Your task to perform on an android device: set default search engine in the chrome app Image 0: 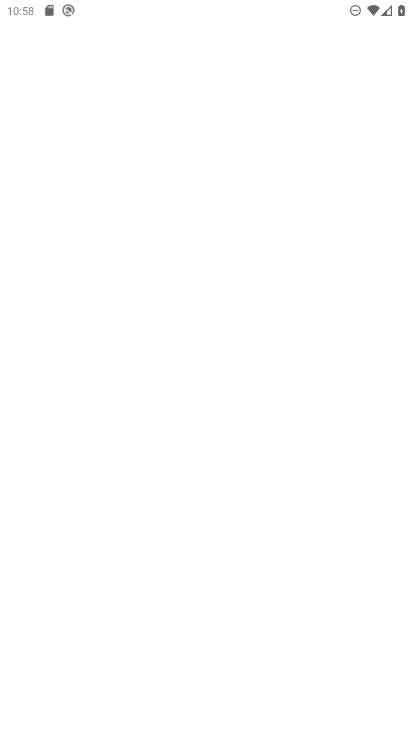
Step 0: click (185, 135)
Your task to perform on an android device: set default search engine in the chrome app Image 1: 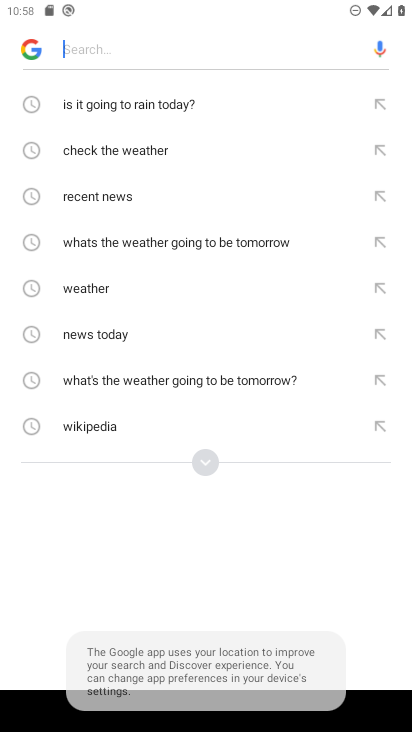
Step 1: press home button
Your task to perform on an android device: set default search engine in the chrome app Image 2: 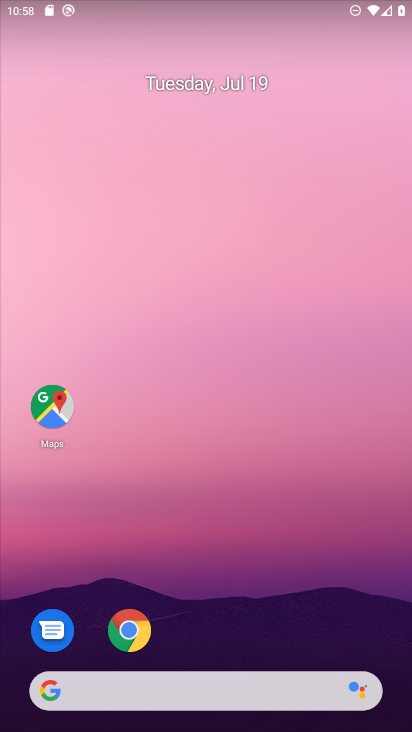
Step 2: drag from (97, 601) to (154, 601)
Your task to perform on an android device: set default search engine in the chrome app Image 3: 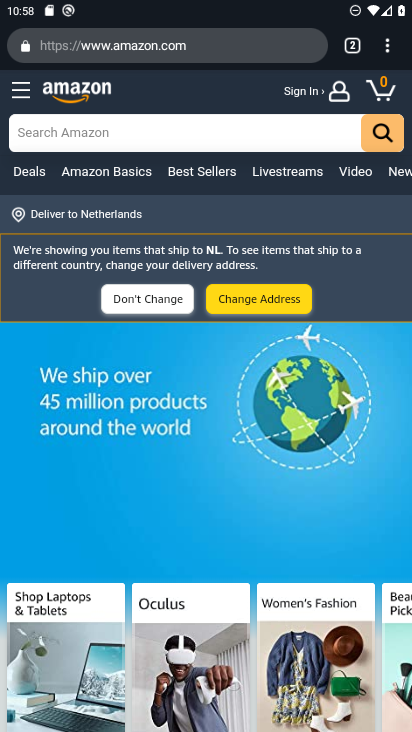
Step 3: drag from (386, 52) to (216, 544)
Your task to perform on an android device: set default search engine in the chrome app Image 4: 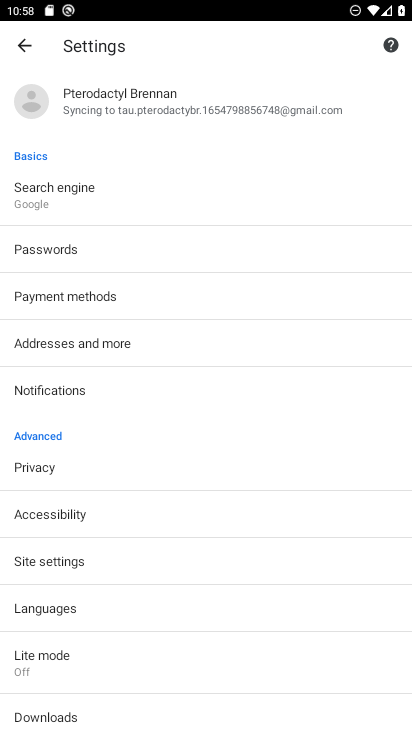
Step 4: click (55, 198)
Your task to perform on an android device: set default search engine in the chrome app Image 5: 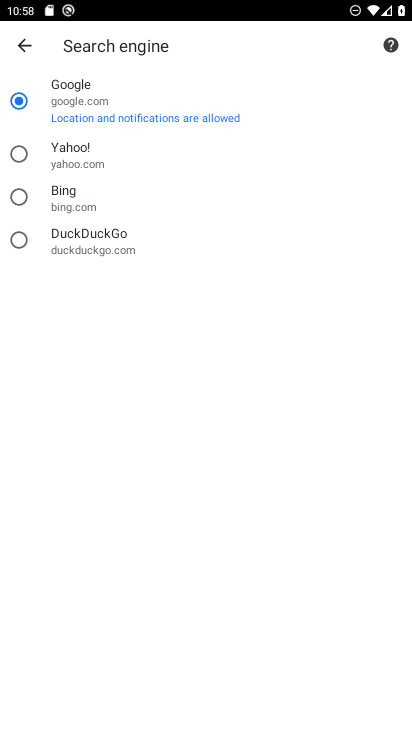
Step 5: click (68, 233)
Your task to perform on an android device: set default search engine in the chrome app Image 6: 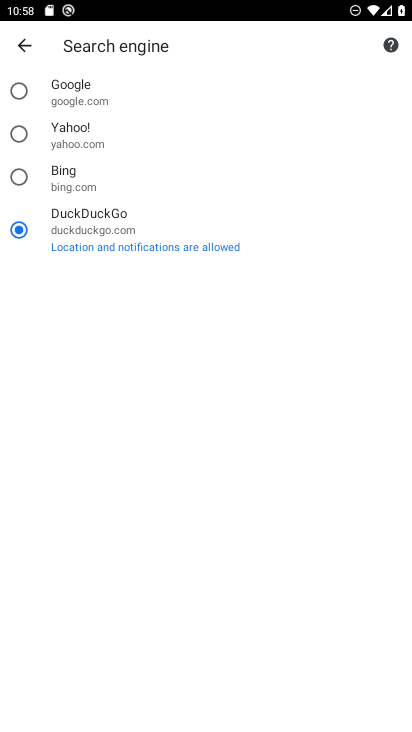
Step 6: task complete